Your task to perform on an android device: toggle priority inbox in the gmail app Image 0: 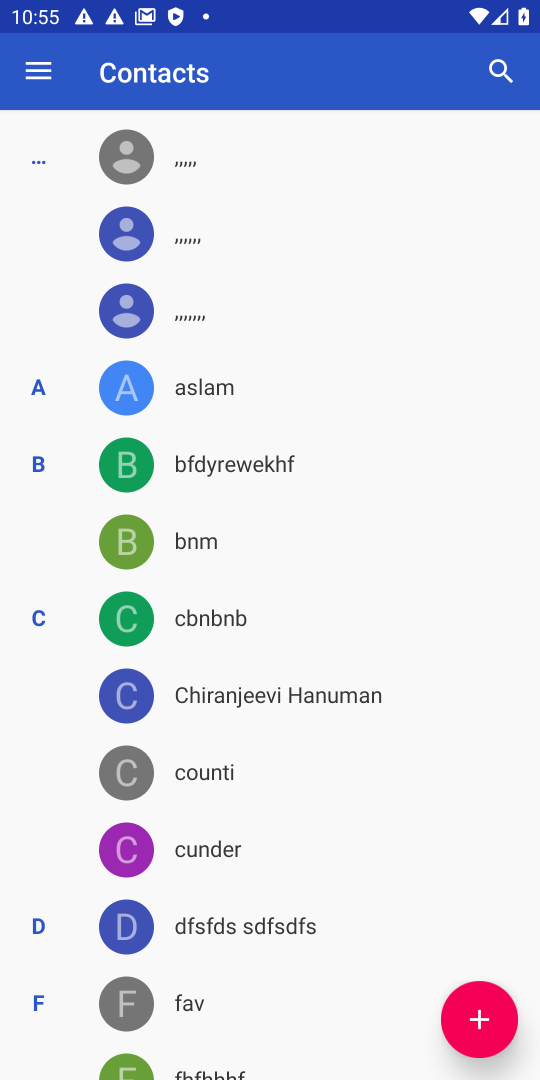
Step 0: press home button
Your task to perform on an android device: toggle priority inbox in the gmail app Image 1: 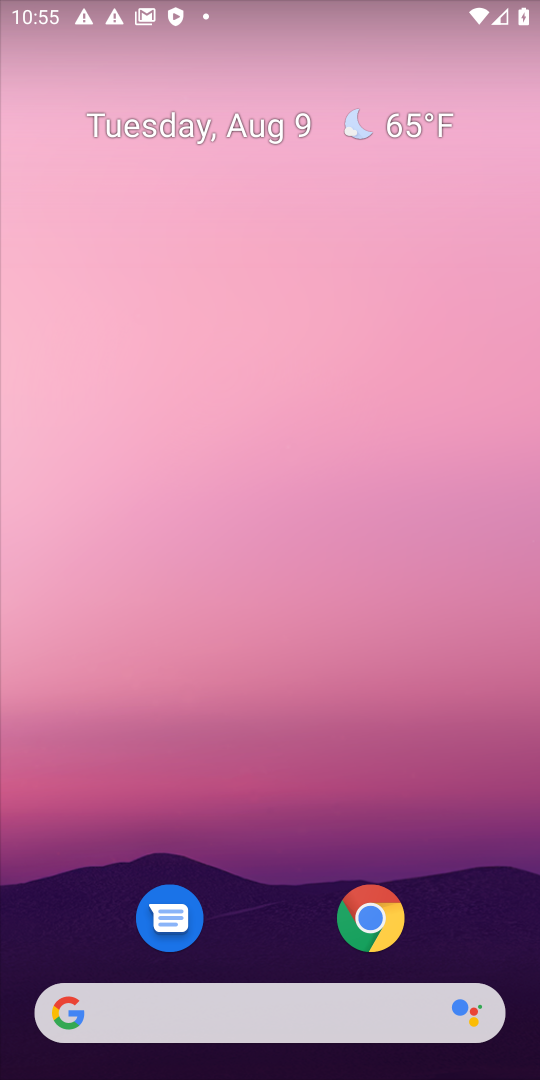
Step 1: drag from (240, 868) to (271, 201)
Your task to perform on an android device: toggle priority inbox in the gmail app Image 2: 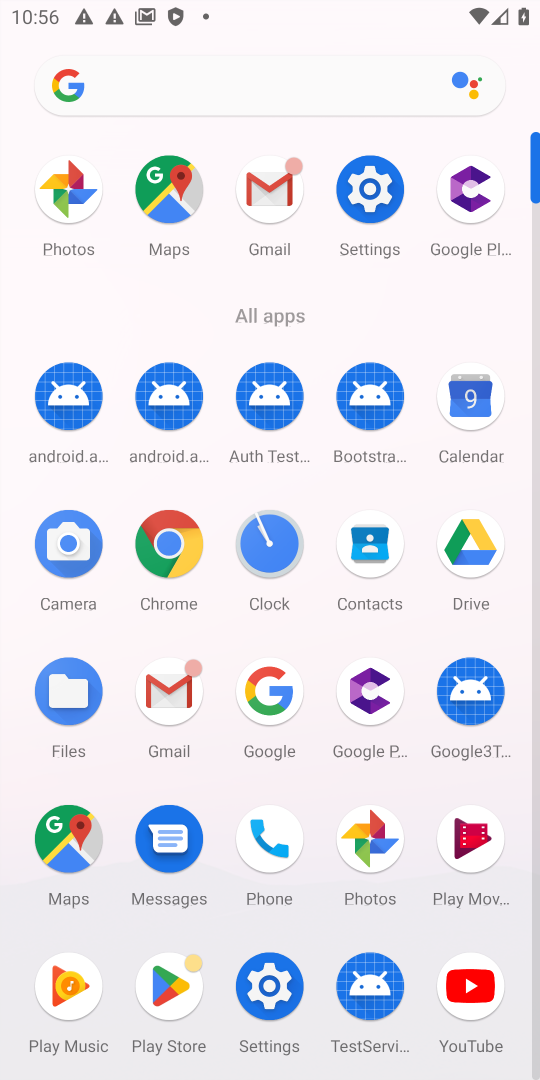
Step 2: click (267, 188)
Your task to perform on an android device: toggle priority inbox in the gmail app Image 3: 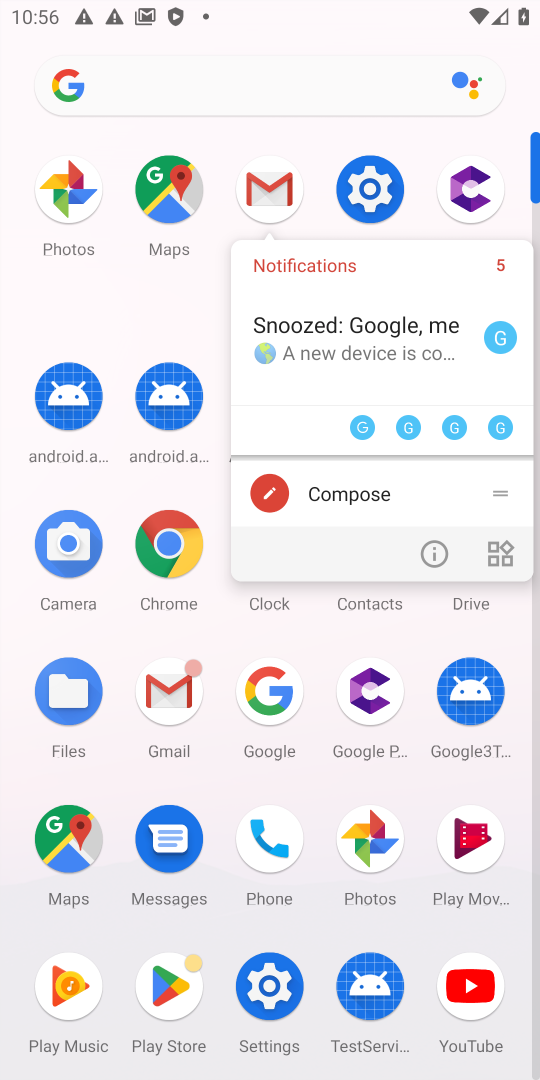
Step 3: click (267, 188)
Your task to perform on an android device: toggle priority inbox in the gmail app Image 4: 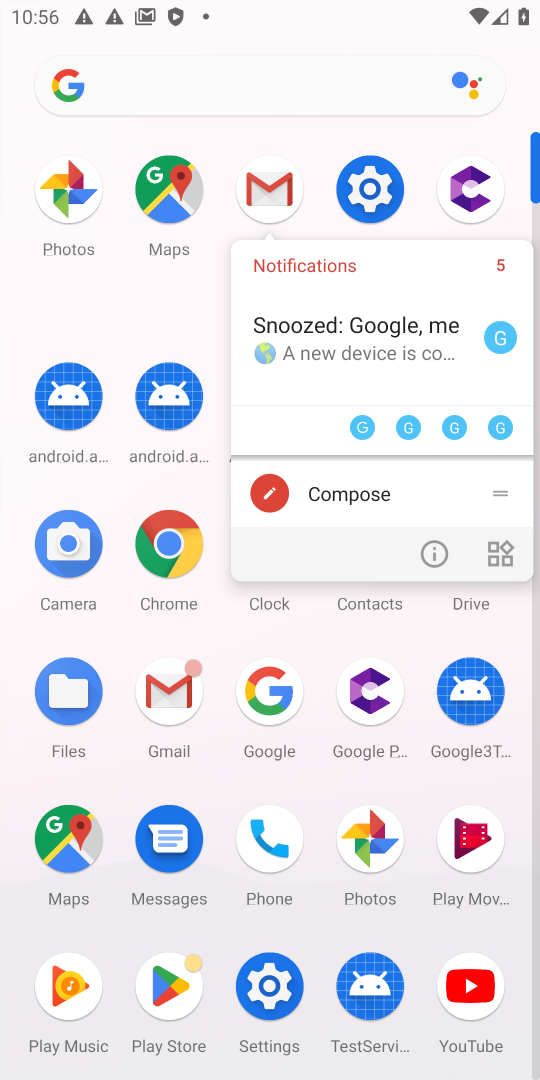
Step 4: click (412, 769)
Your task to perform on an android device: toggle priority inbox in the gmail app Image 5: 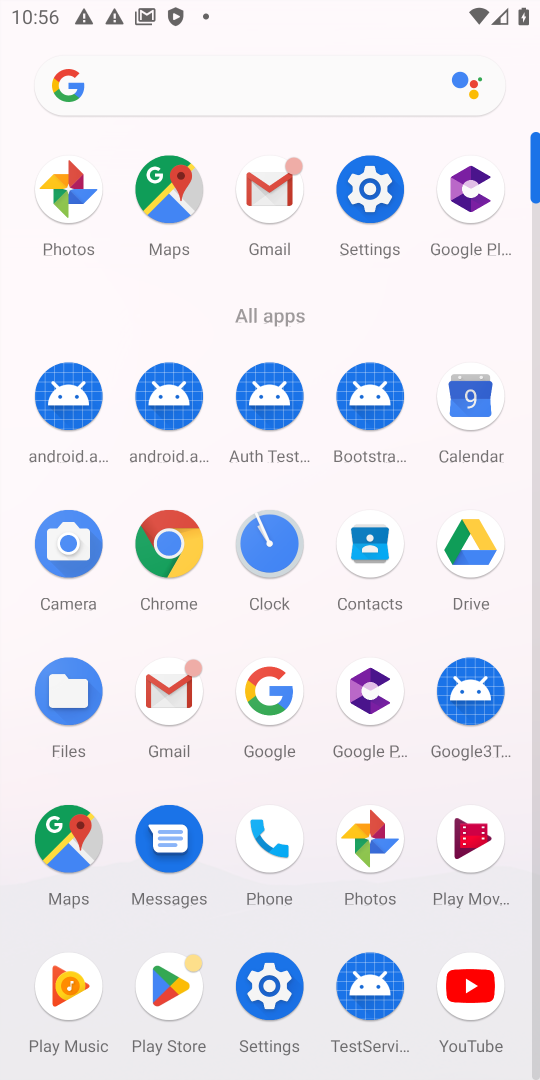
Step 5: click (175, 695)
Your task to perform on an android device: toggle priority inbox in the gmail app Image 6: 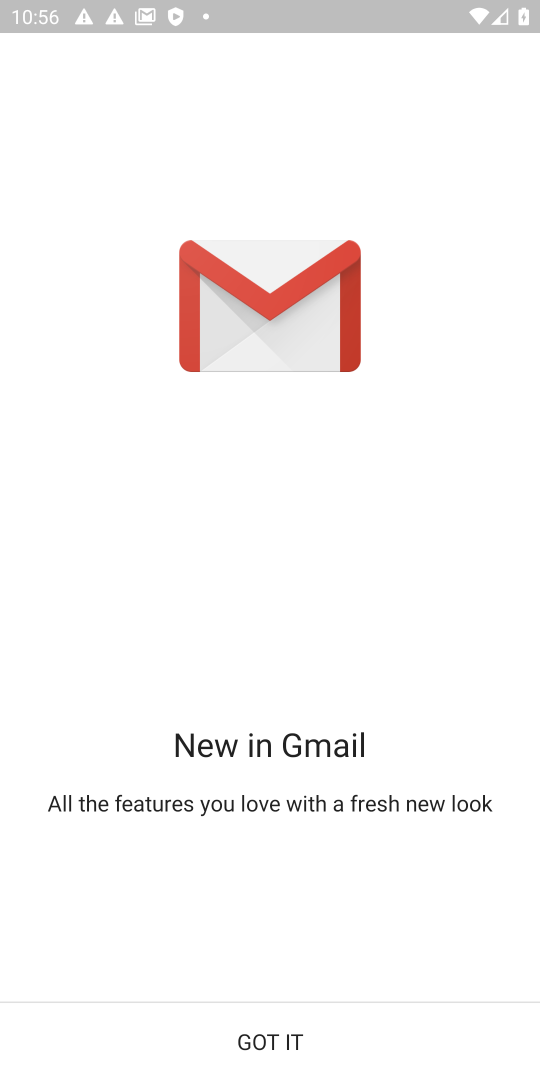
Step 6: click (287, 1041)
Your task to perform on an android device: toggle priority inbox in the gmail app Image 7: 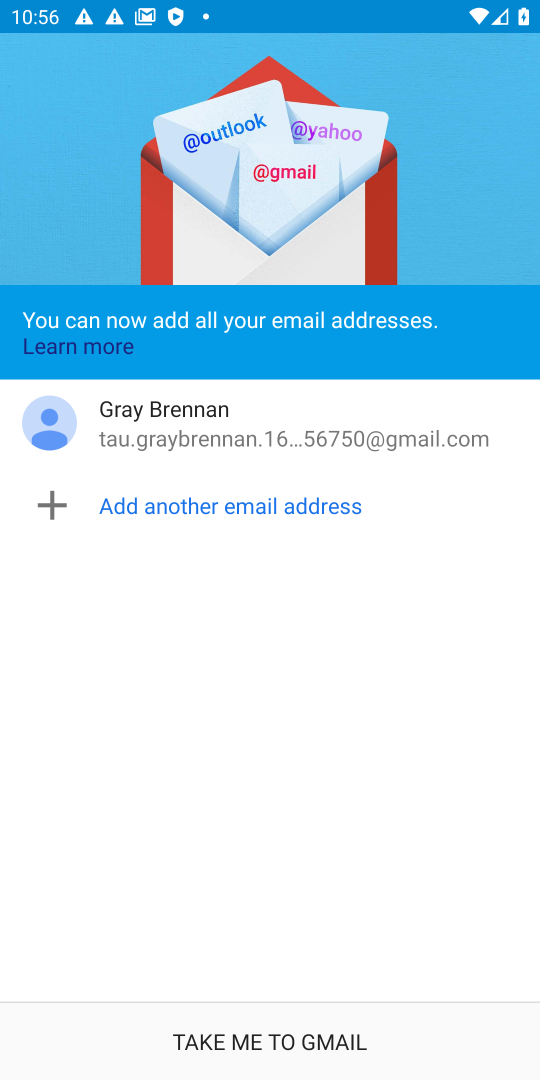
Step 7: click (286, 1033)
Your task to perform on an android device: toggle priority inbox in the gmail app Image 8: 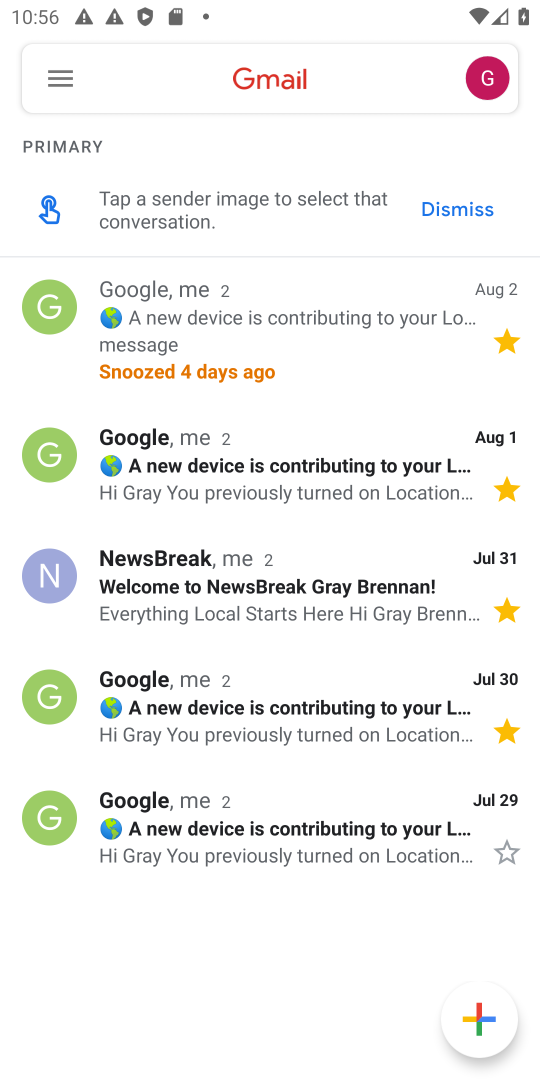
Step 8: click (65, 55)
Your task to perform on an android device: toggle priority inbox in the gmail app Image 9: 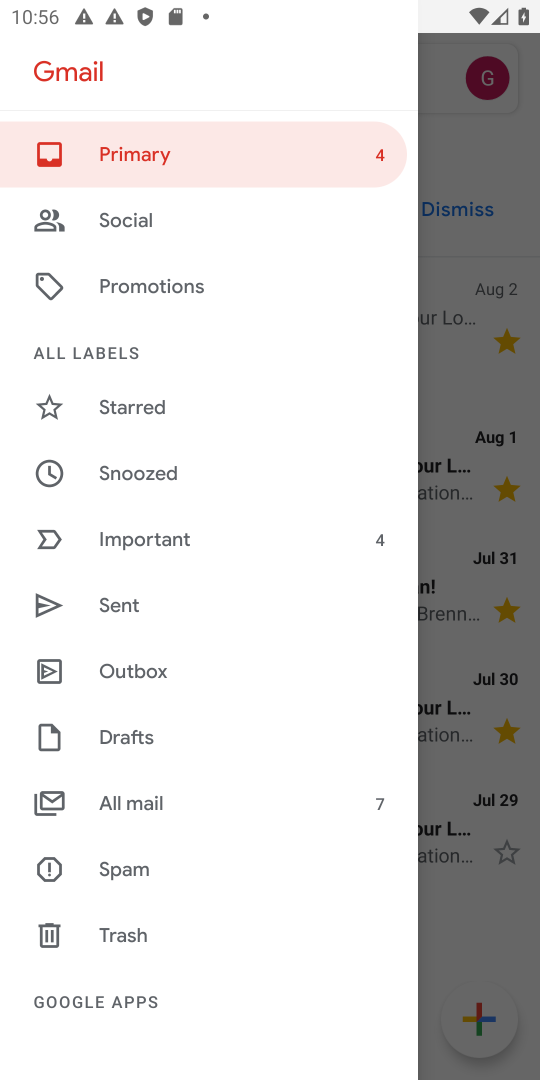
Step 9: drag from (125, 960) to (163, 442)
Your task to perform on an android device: toggle priority inbox in the gmail app Image 10: 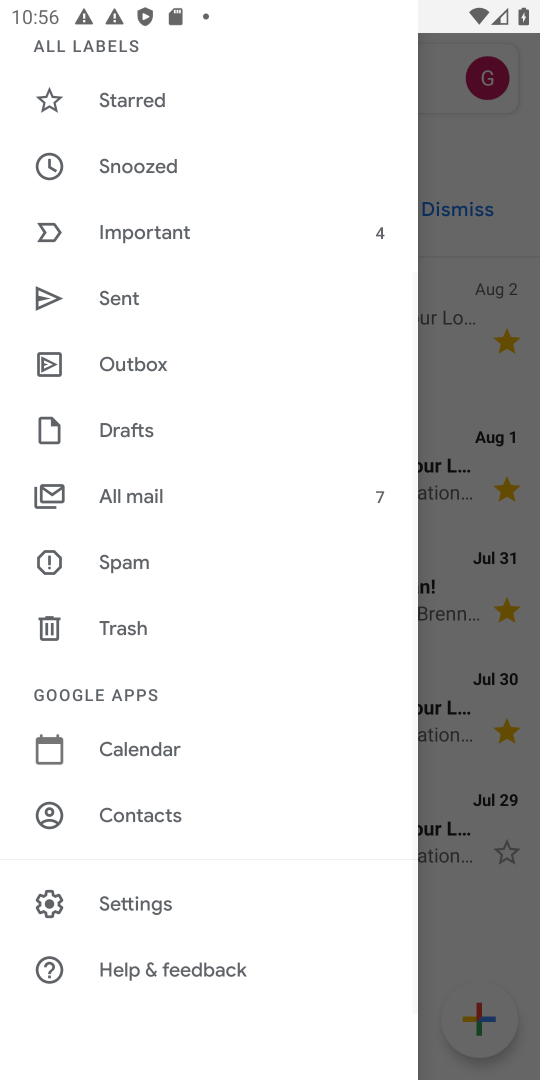
Step 10: click (131, 901)
Your task to perform on an android device: toggle priority inbox in the gmail app Image 11: 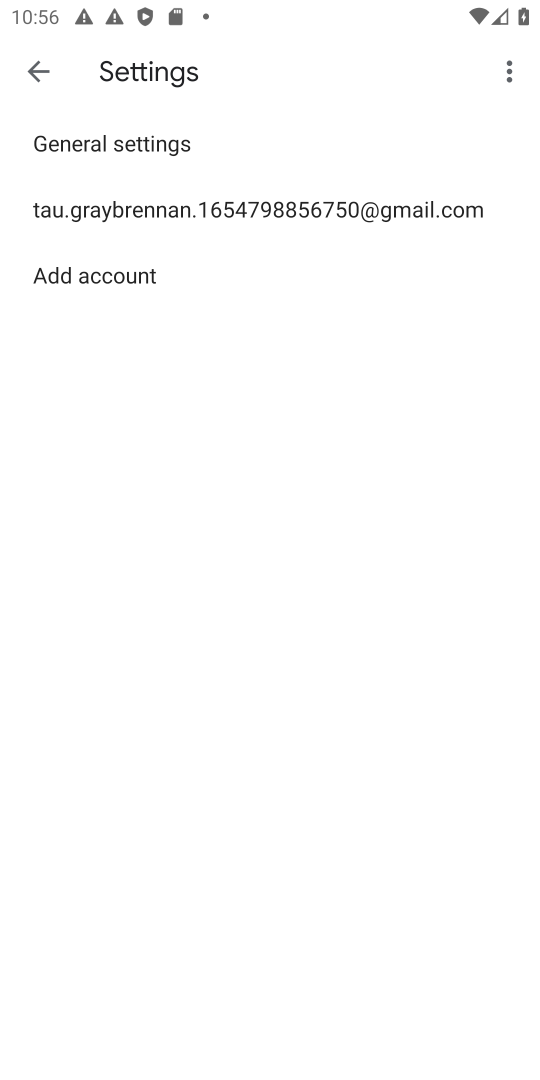
Step 11: click (108, 221)
Your task to perform on an android device: toggle priority inbox in the gmail app Image 12: 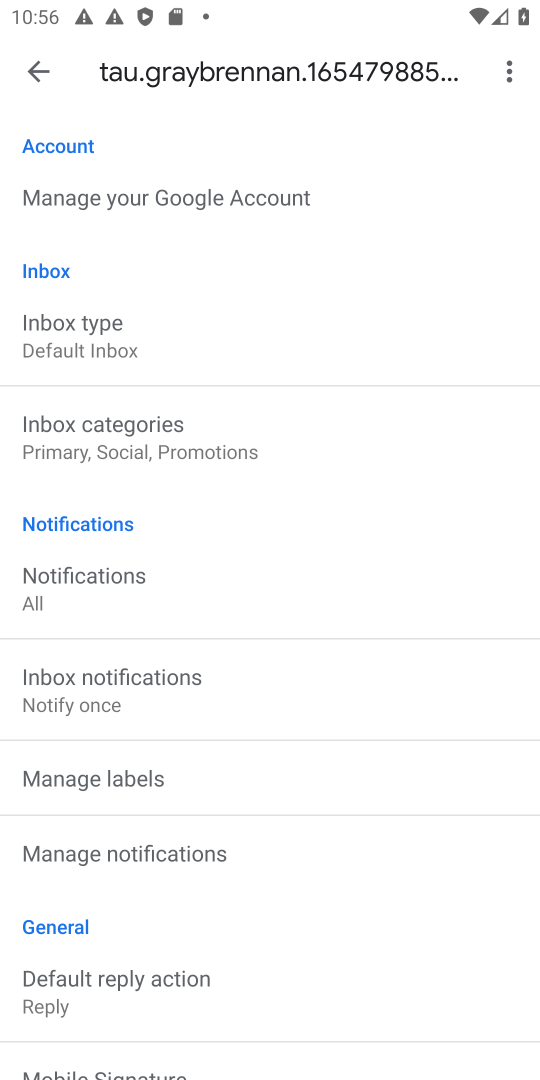
Step 12: click (100, 329)
Your task to perform on an android device: toggle priority inbox in the gmail app Image 13: 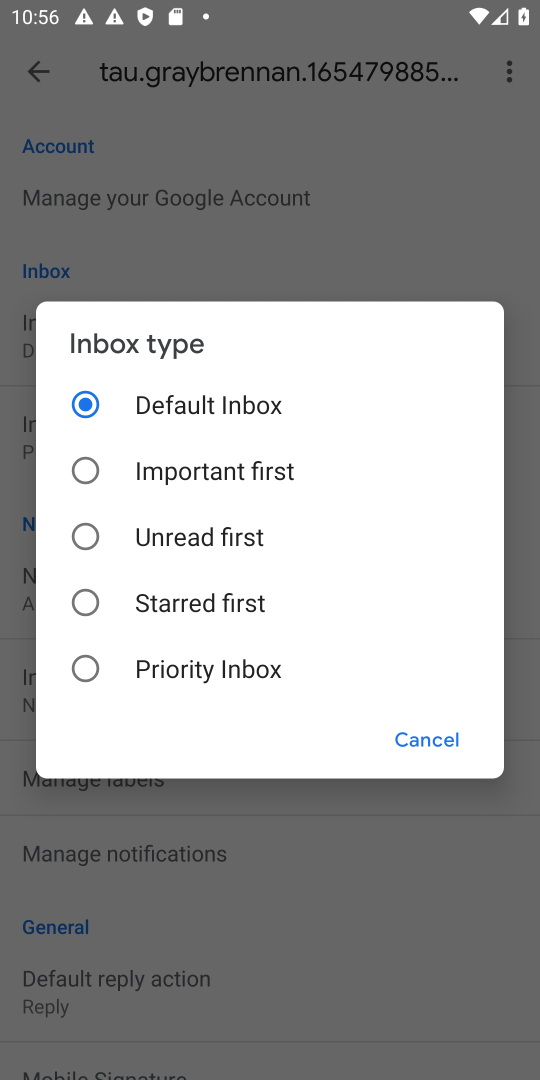
Step 13: click (174, 668)
Your task to perform on an android device: toggle priority inbox in the gmail app Image 14: 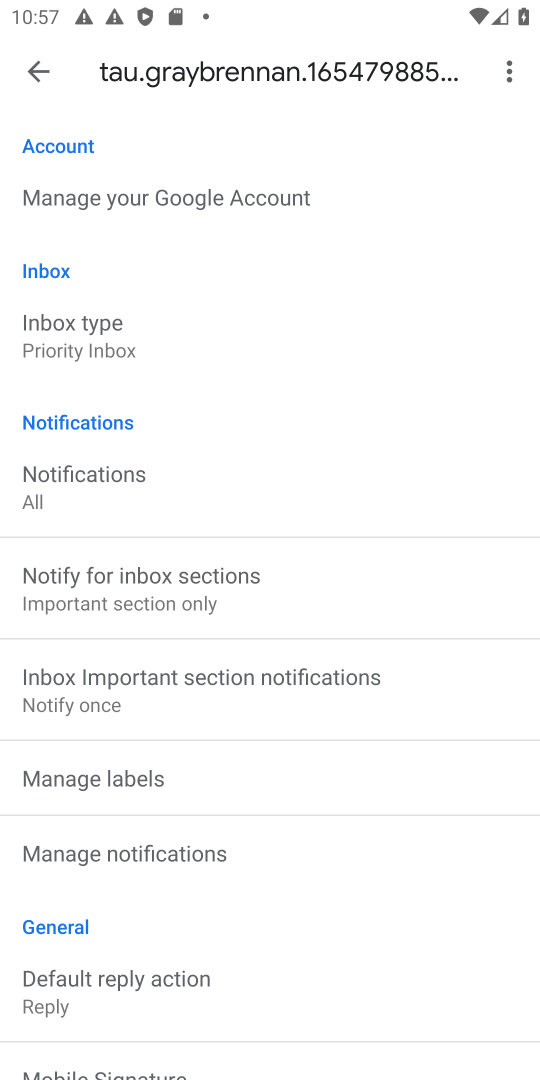
Step 14: task complete